Your task to perform on an android device: Open Amazon Image 0: 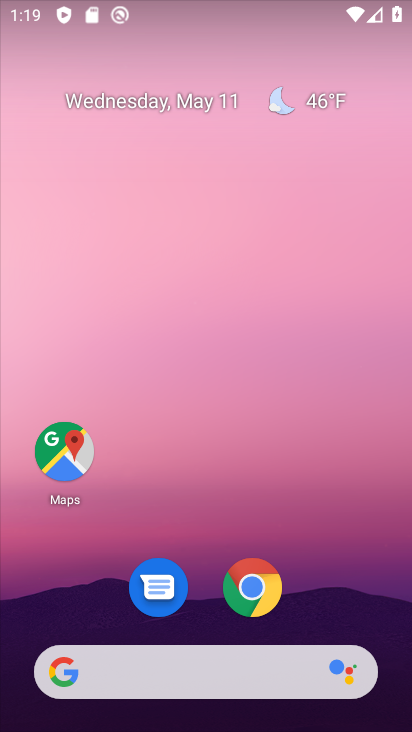
Step 0: click (318, 675)
Your task to perform on an android device: Open Amazon Image 1: 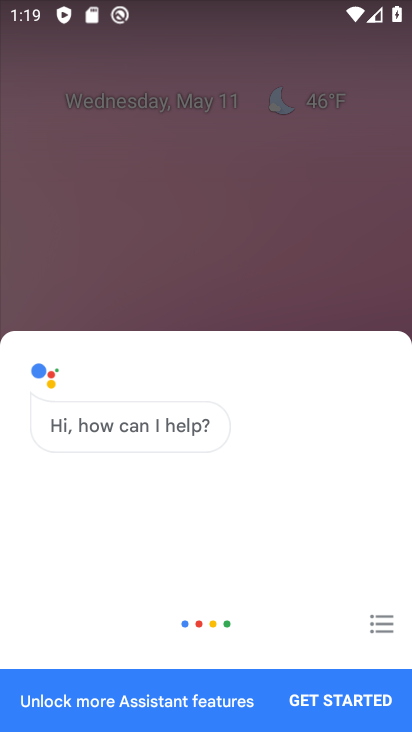
Step 1: press home button
Your task to perform on an android device: Open Amazon Image 2: 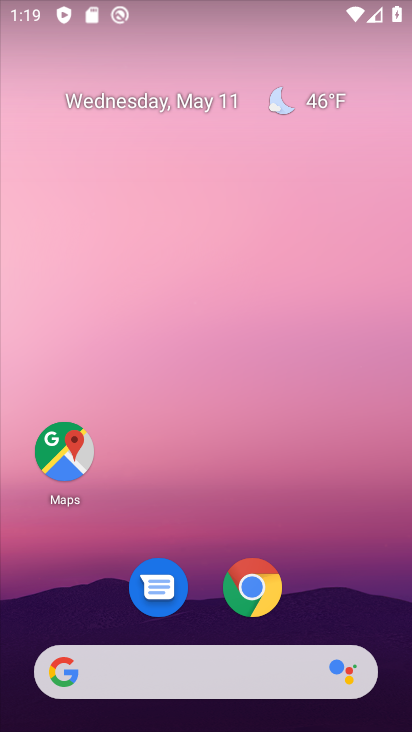
Step 2: drag from (337, 478) to (341, 187)
Your task to perform on an android device: Open Amazon Image 3: 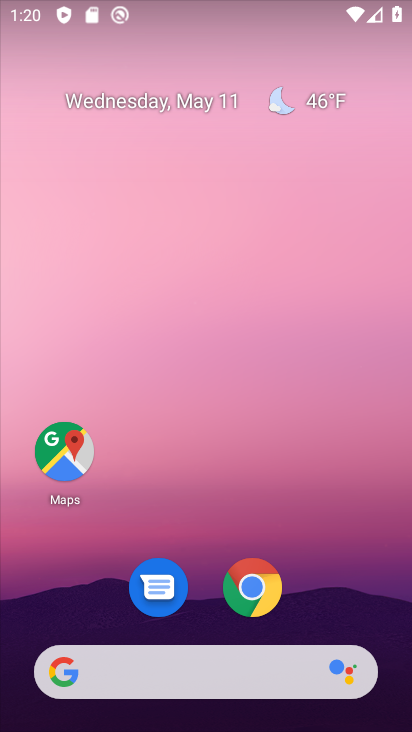
Step 3: click (265, 604)
Your task to perform on an android device: Open Amazon Image 4: 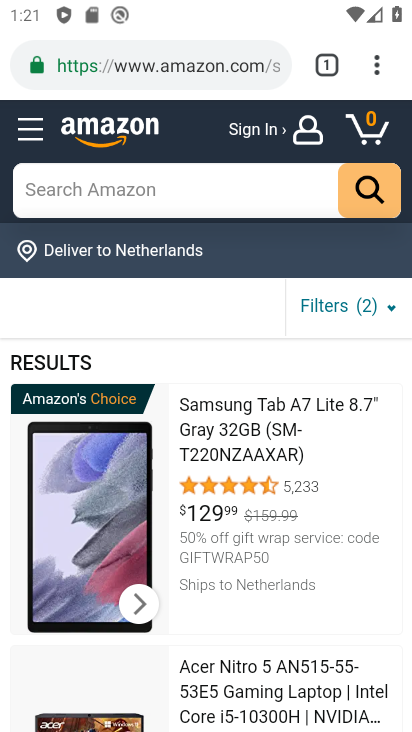
Step 4: task complete